Your task to perform on an android device: uninstall "Microsoft Authenticator" Image 0: 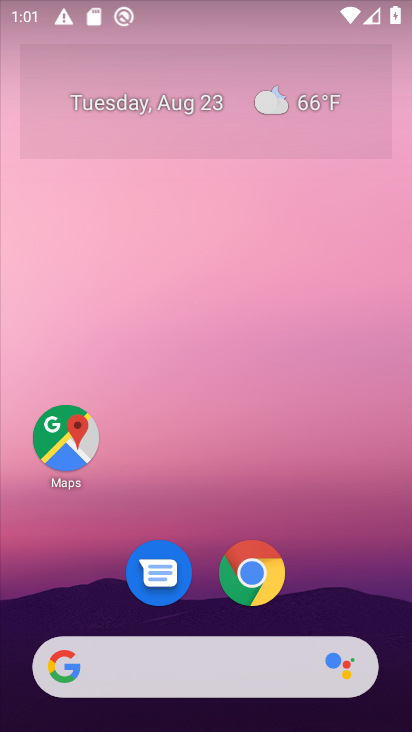
Step 0: drag from (202, 469) to (244, 129)
Your task to perform on an android device: uninstall "Microsoft Authenticator" Image 1: 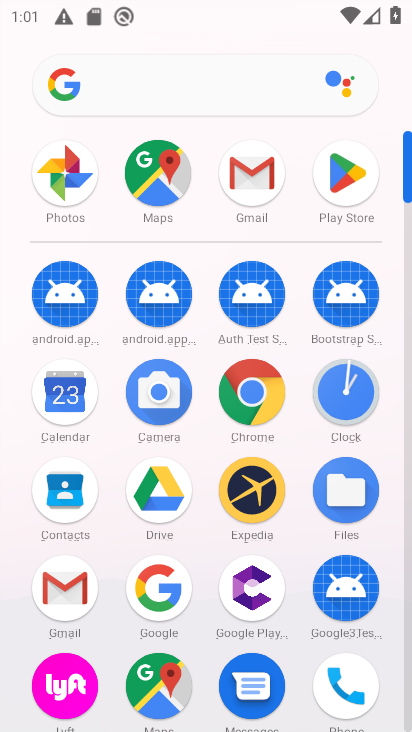
Step 1: click (342, 169)
Your task to perform on an android device: uninstall "Microsoft Authenticator" Image 2: 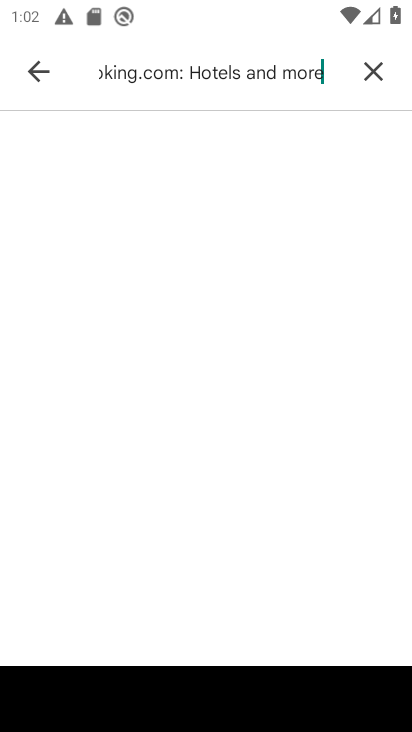
Step 2: click (370, 70)
Your task to perform on an android device: uninstall "Microsoft Authenticator" Image 3: 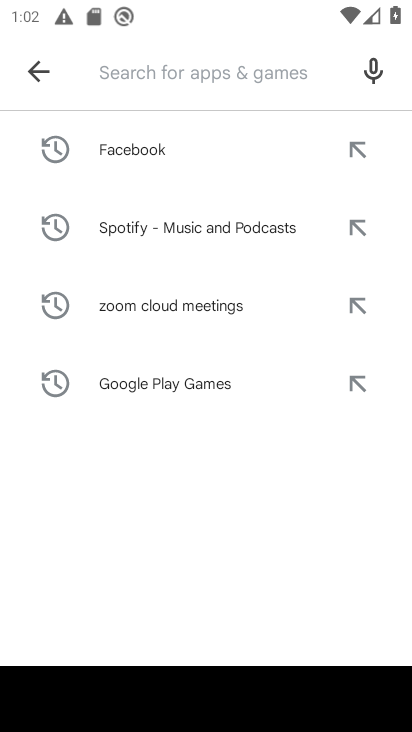
Step 3: type "Microsoft Authenticator"
Your task to perform on an android device: uninstall "Microsoft Authenticator" Image 4: 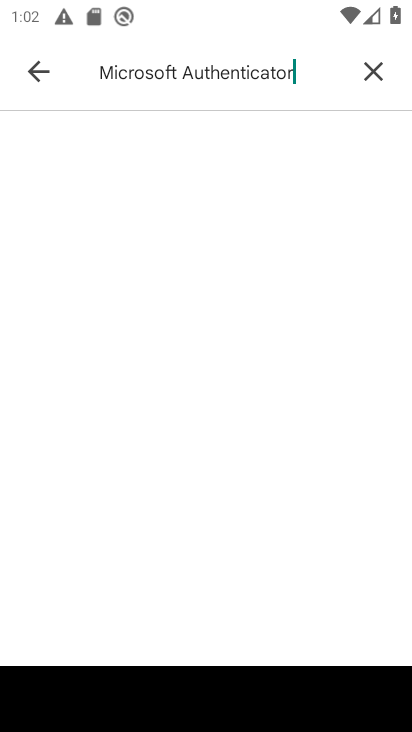
Step 4: task complete